Your task to perform on an android device: Open my contact list Image 0: 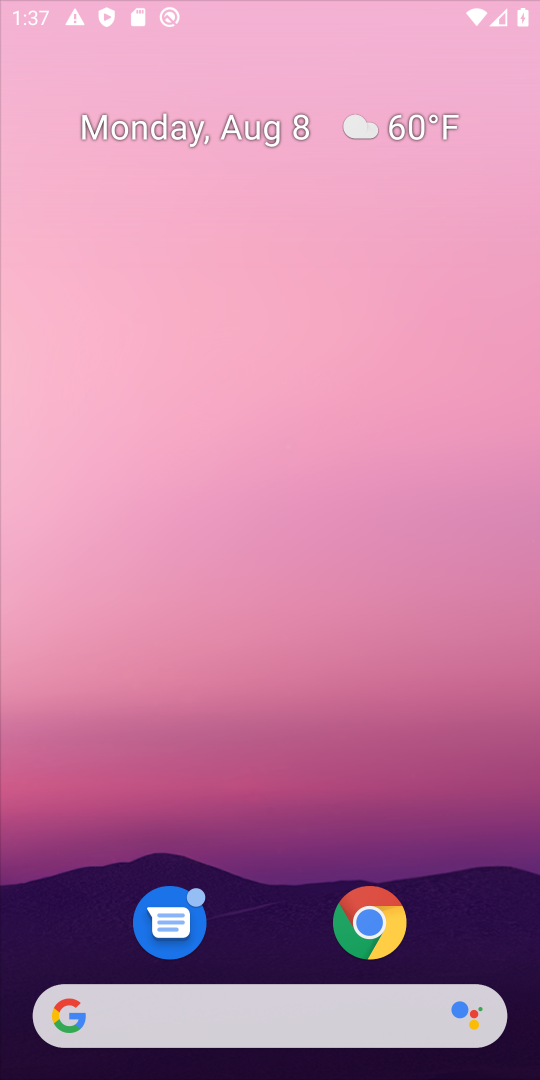
Step 0: press home button
Your task to perform on an android device: Open my contact list Image 1: 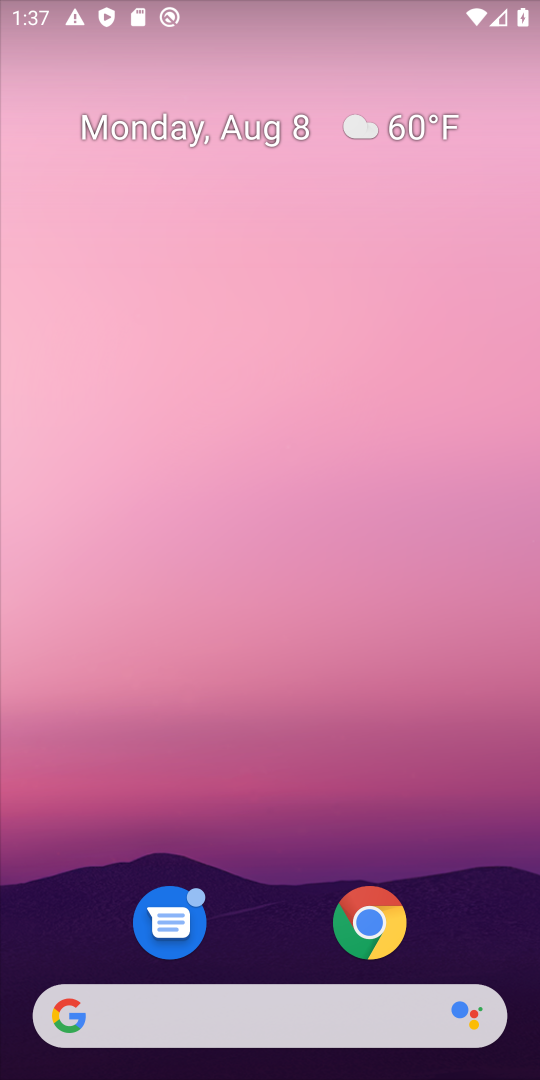
Step 1: drag from (469, 869) to (443, 99)
Your task to perform on an android device: Open my contact list Image 2: 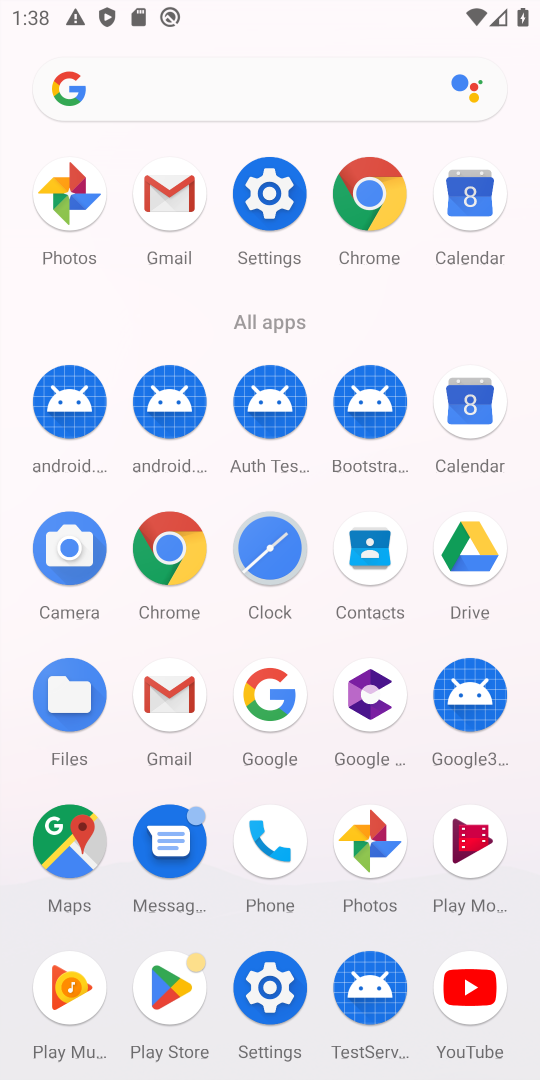
Step 2: click (378, 550)
Your task to perform on an android device: Open my contact list Image 3: 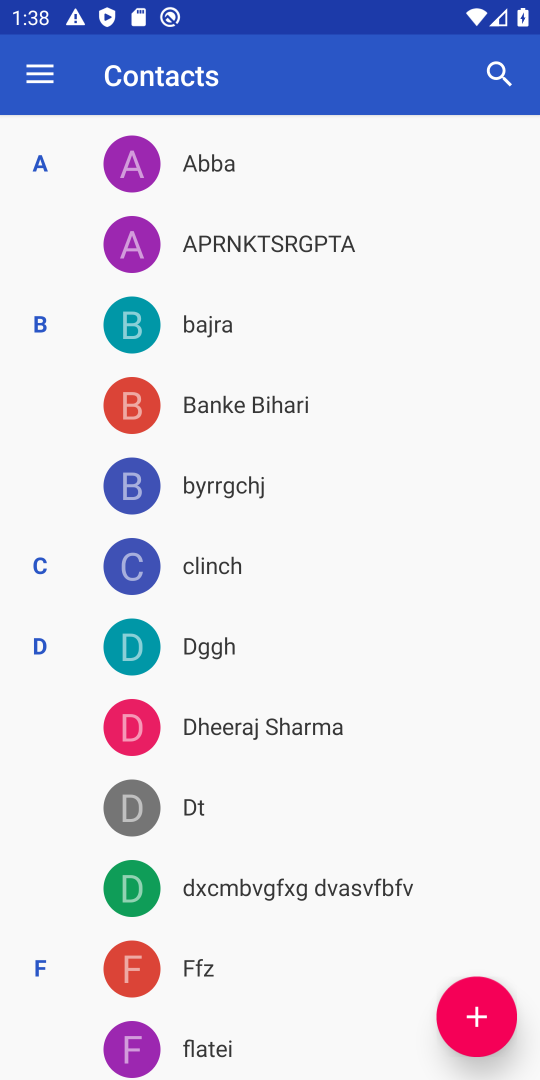
Step 3: task complete